Your task to perform on an android device: turn on notifications settings in the gmail app Image 0: 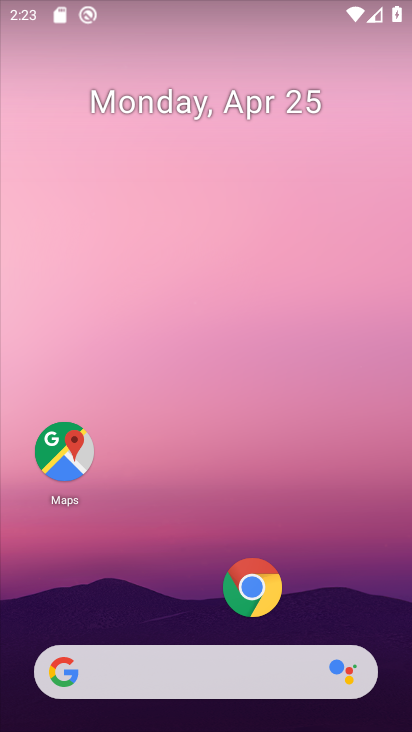
Step 0: drag from (167, 623) to (167, 3)
Your task to perform on an android device: turn on notifications settings in the gmail app Image 1: 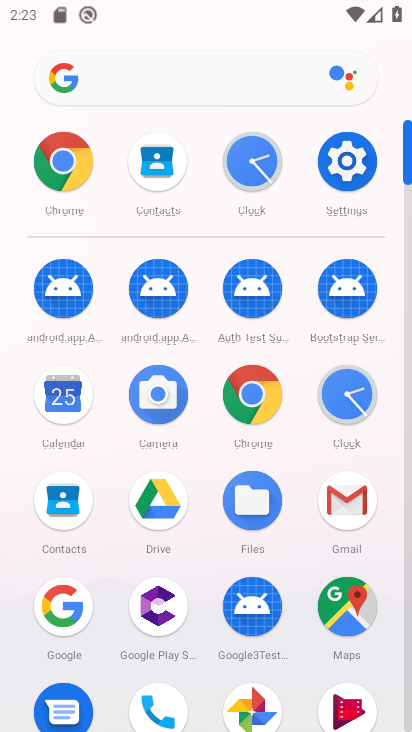
Step 1: click (346, 495)
Your task to perform on an android device: turn on notifications settings in the gmail app Image 2: 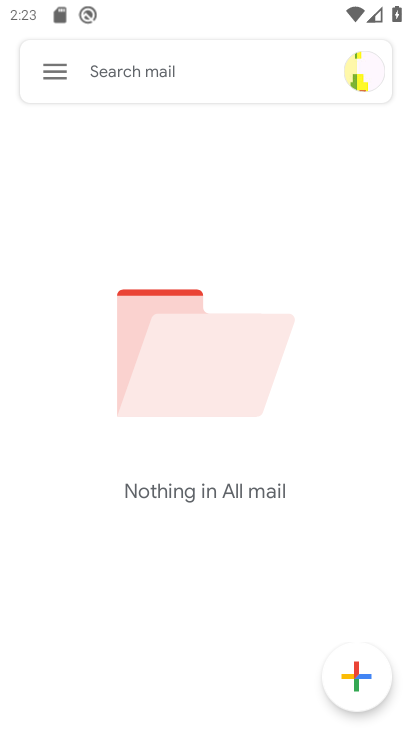
Step 2: click (62, 66)
Your task to perform on an android device: turn on notifications settings in the gmail app Image 3: 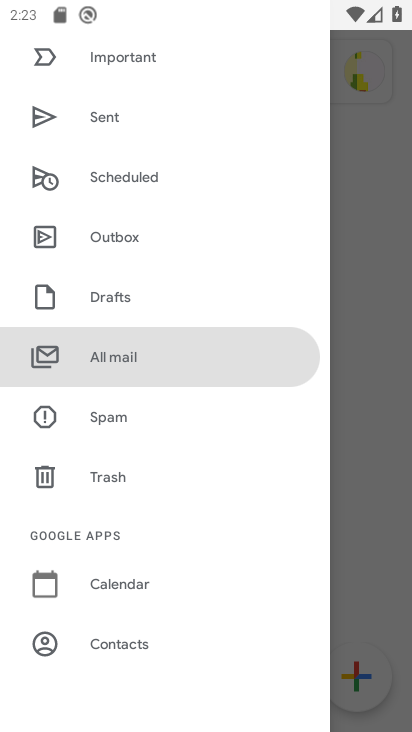
Step 3: drag from (125, 593) to (140, 84)
Your task to perform on an android device: turn on notifications settings in the gmail app Image 4: 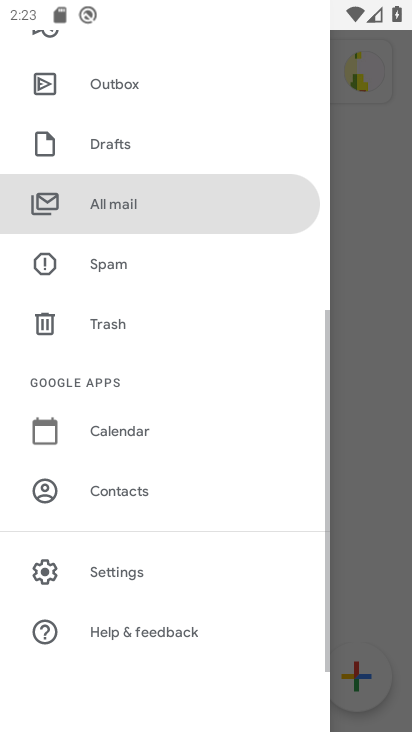
Step 4: click (137, 565)
Your task to perform on an android device: turn on notifications settings in the gmail app Image 5: 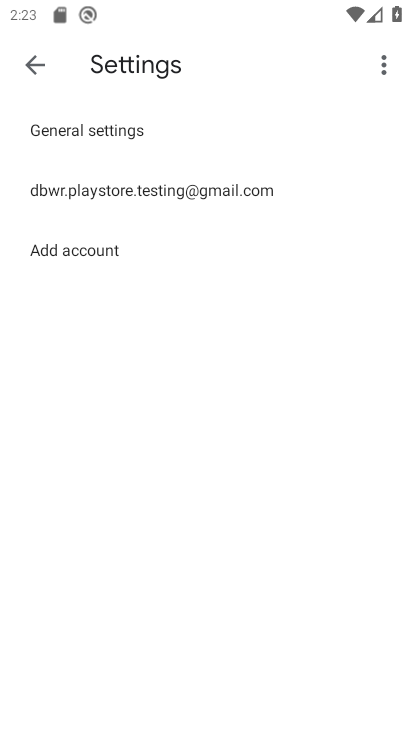
Step 5: click (158, 116)
Your task to perform on an android device: turn on notifications settings in the gmail app Image 6: 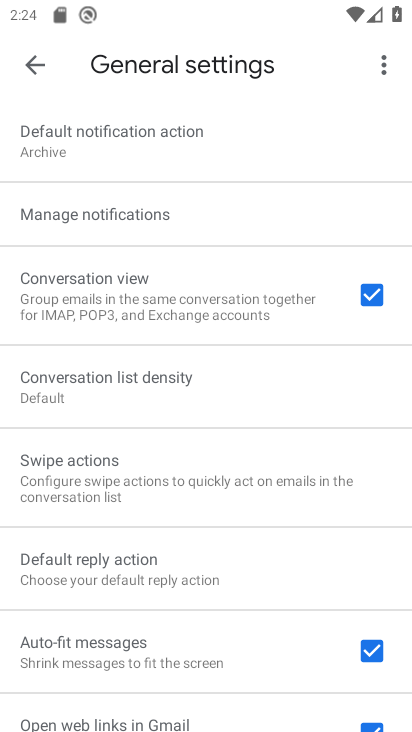
Step 6: click (178, 215)
Your task to perform on an android device: turn on notifications settings in the gmail app Image 7: 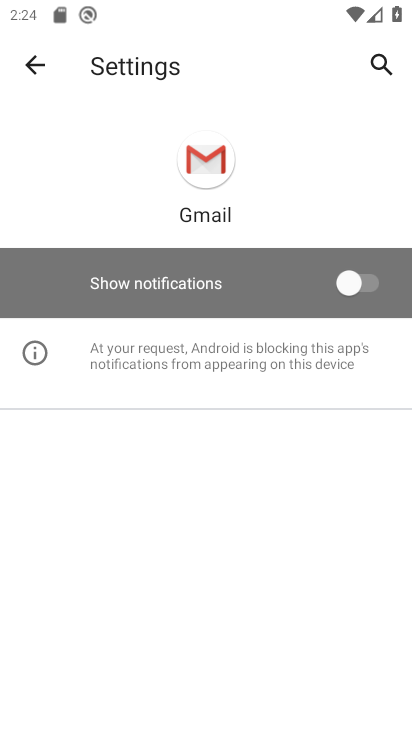
Step 7: click (370, 271)
Your task to perform on an android device: turn on notifications settings in the gmail app Image 8: 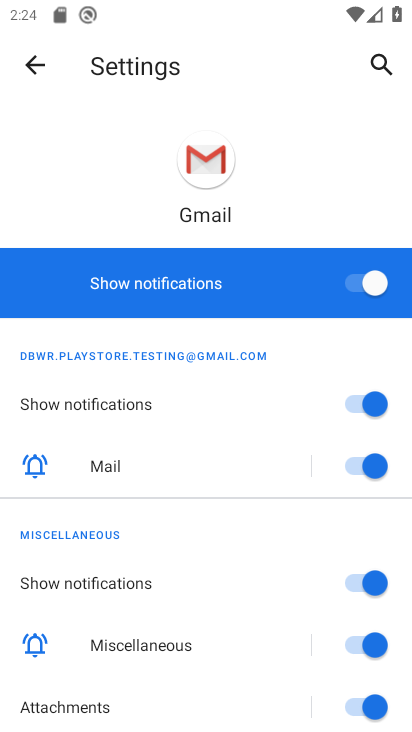
Step 8: task complete